Your task to perform on an android device: Go to calendar. Show me events next week Image 0: 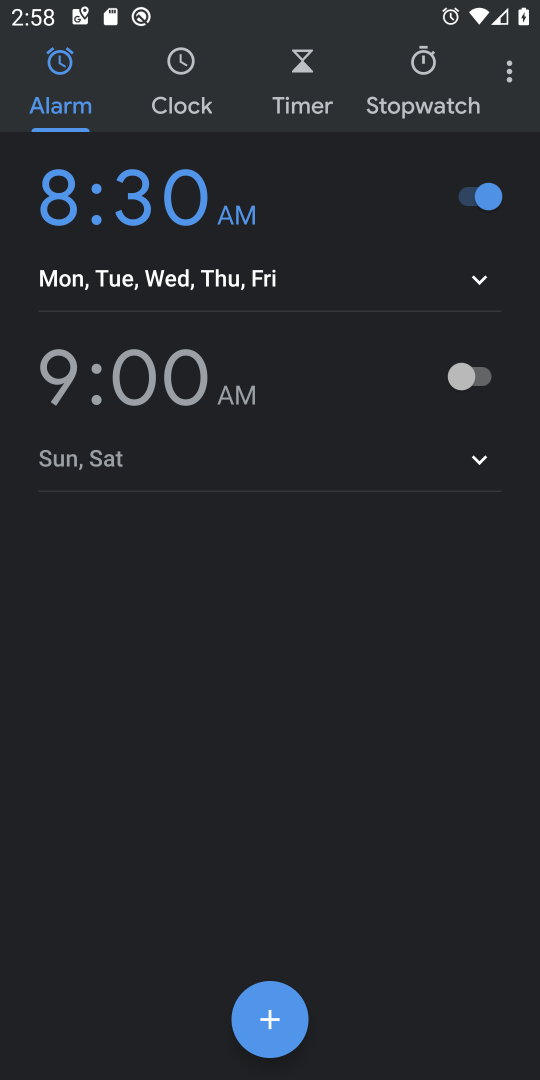
Step 0: press home button
Your task to perform on an android device: Go to calendar. Show me events next week Image 1: 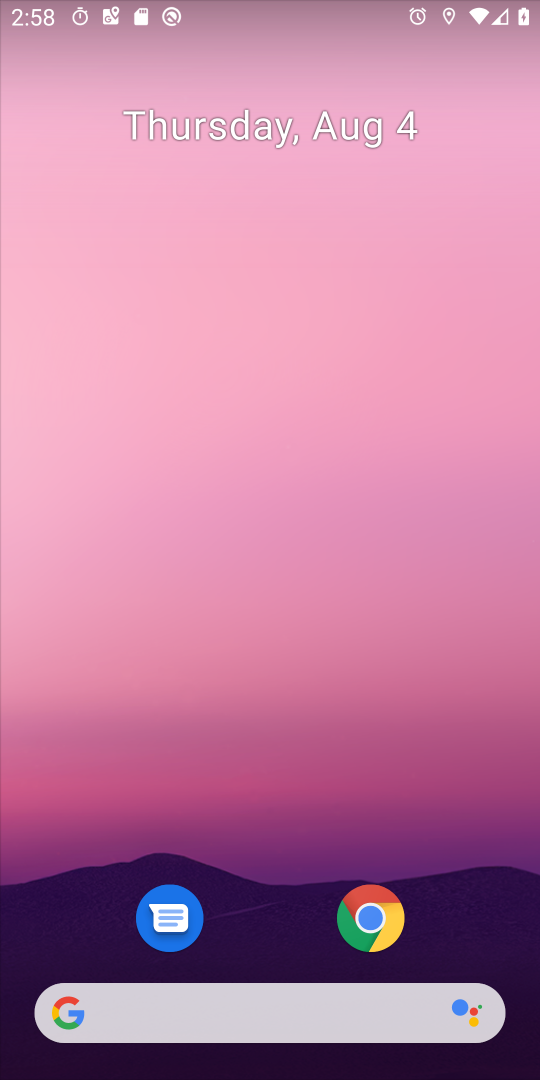
Step 1: drag from (256, 898) to (203, 436)
Your task to perform on an android device: Go to calendar. Show me events next week Image 2: 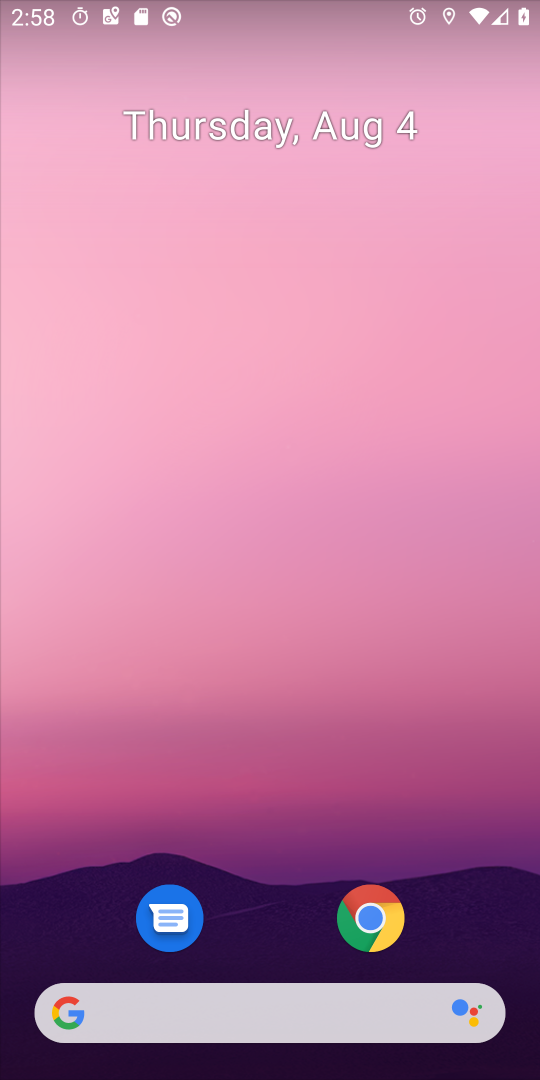
Step 2: drag from (229, 859) to (190, 275)
Your task to perform on an android device: Go to calendar. Show me events next week Image 3: 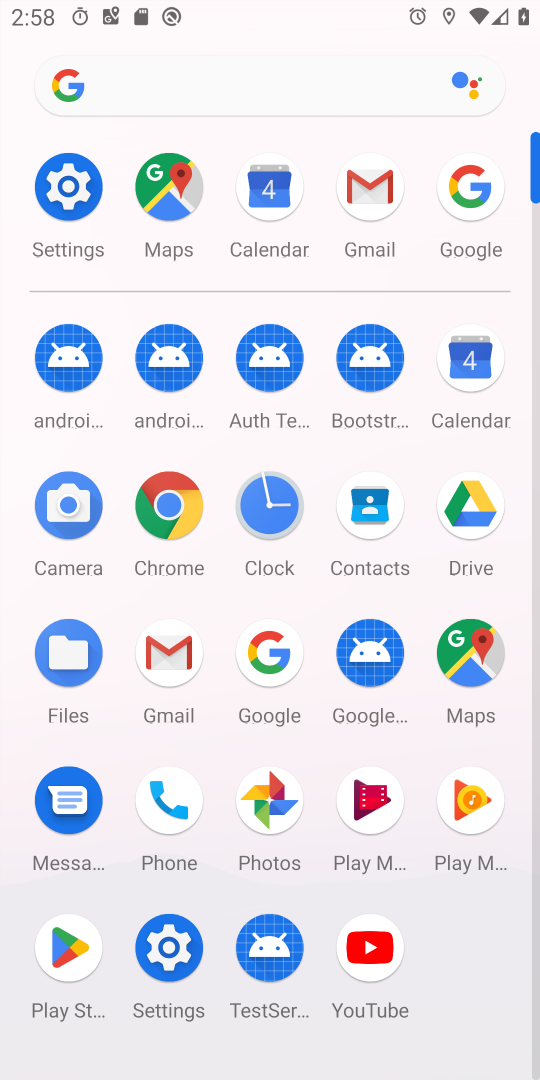
Step 3: click (456, 364)
Your task to perform on an android device: Go to calendar. Show me events next week Image 4: 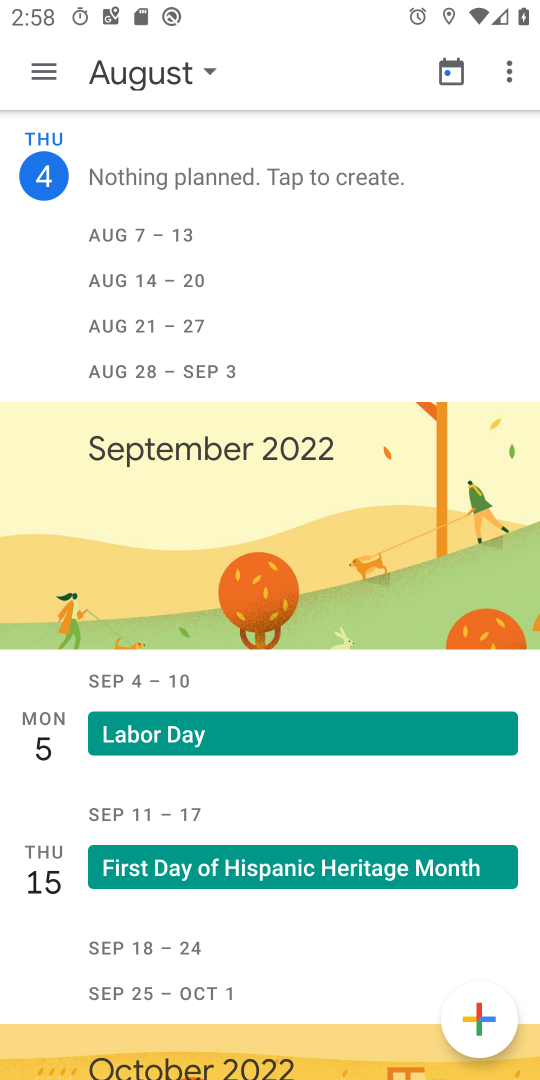
Step 4: click (202, 81)
Your task to perform on an android device: Go to calendar. Show me events next week Image 5: 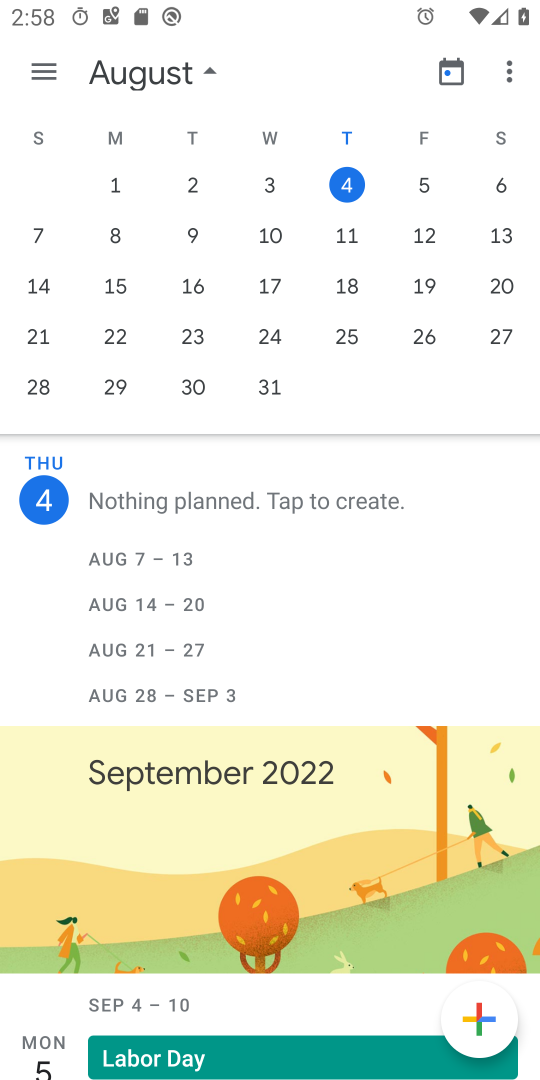
Step 5: click (53, 245)
Your task to perform on an android device: Go to calendar. Show me events next week Image 6: 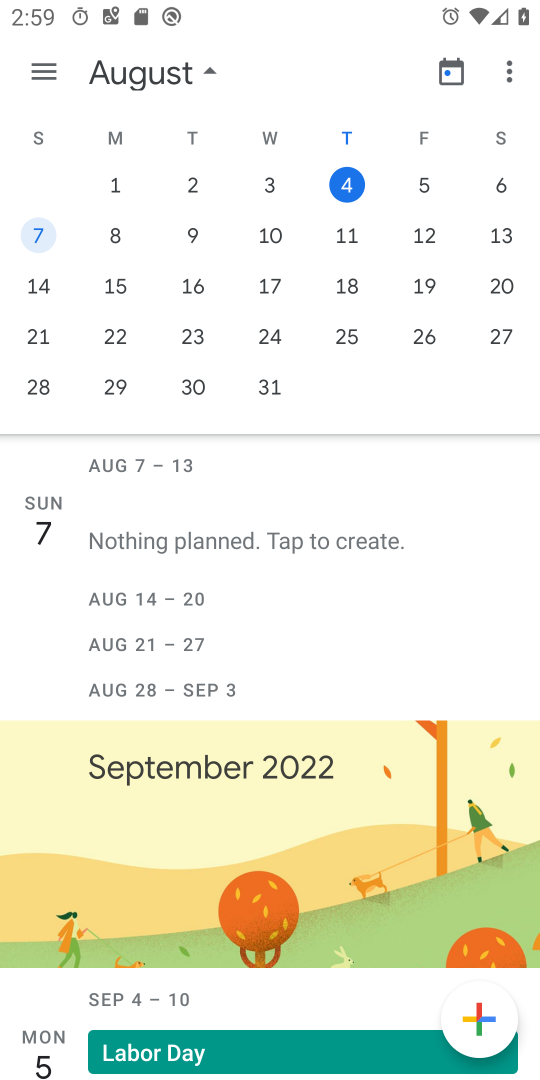
Step 6: click (35, 238)
Your task to perform on an android device: Go to calendar. Show me events next week Image 7: 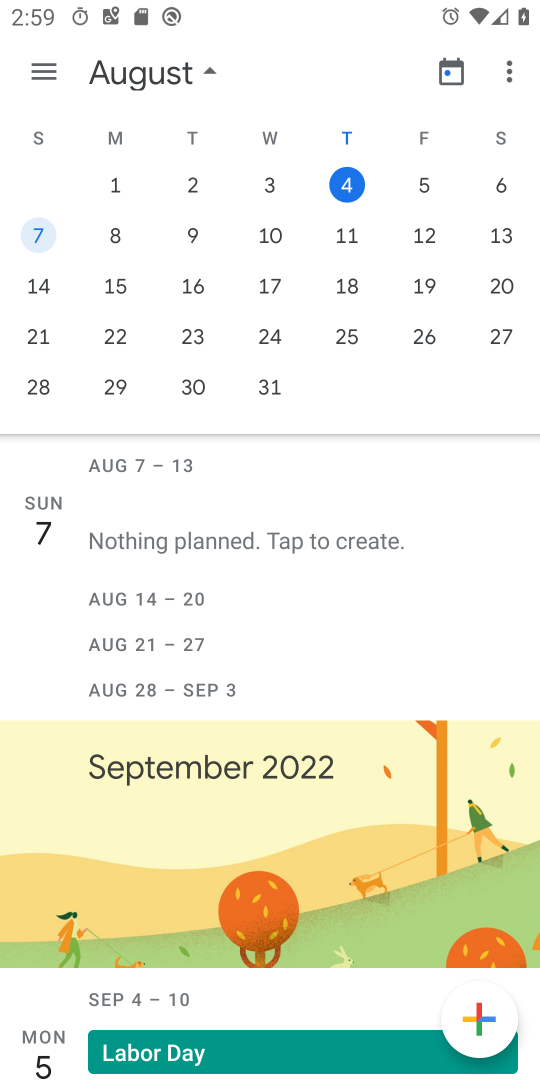
Step 7: click (116, 226)
Your task to perform on an android device: Go to calendar. Show me events next week Image 8: 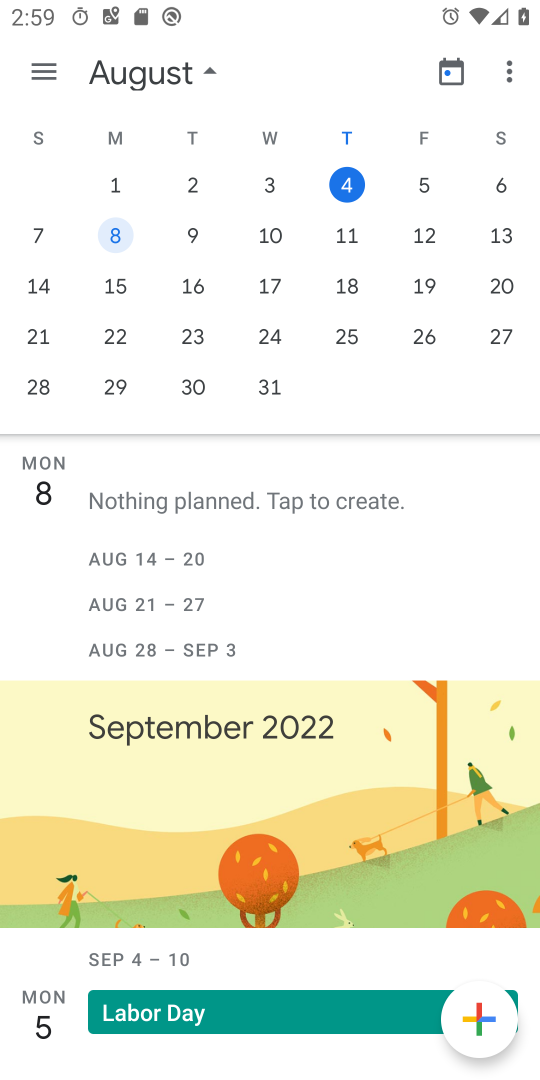
Step 8: task complete